Your task to perform on an android device: turn on the 24-hour format for clock Image 0: 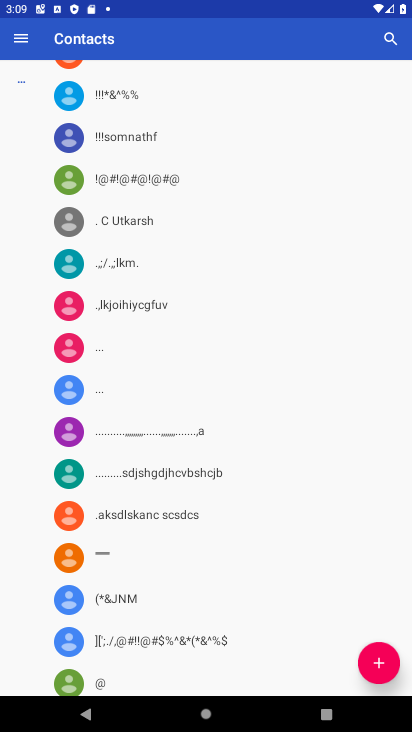
Step 0: press home button
Your task to perform on an android device: turn on the 24-hour format for clock Image 1: 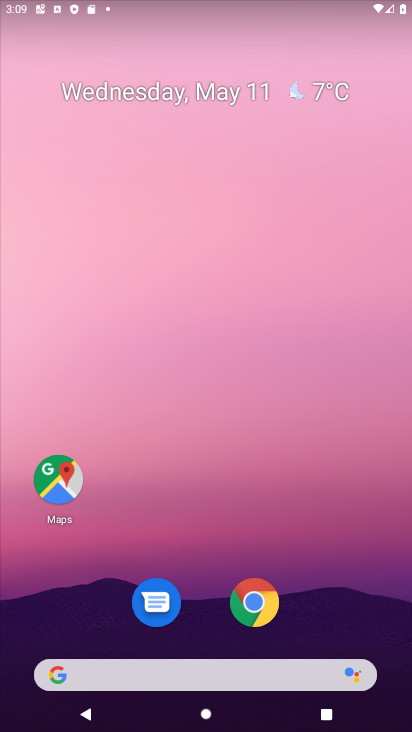
Step 1: drag from (219, 621) to (321, 54)
Your task to perform on an android device: turn on the 24-hour format for clock Image 2: 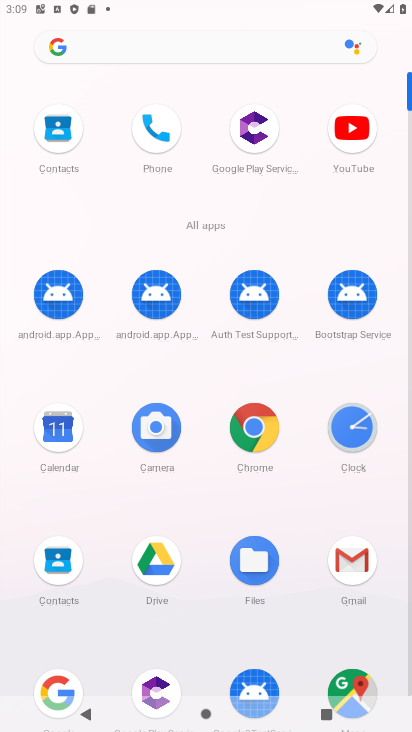
Step 2: click (354, 440)
Your task to perform on an android device: turn on the 24-hour format for clock Image 3: 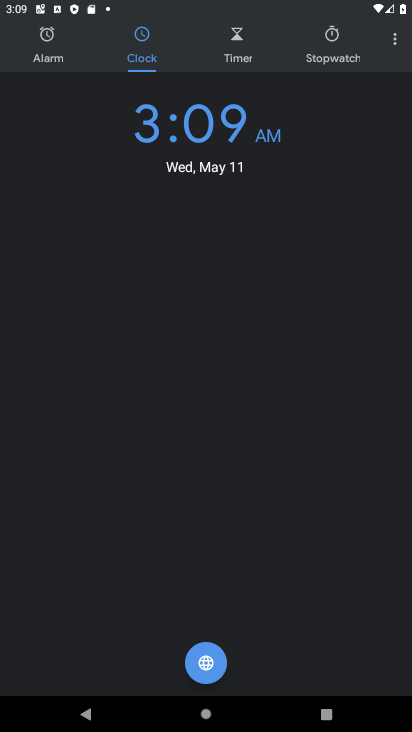
Step 3: click (384, 43)
Your task to perform on an android device: turn on the 24-hour format for clock Image 4: 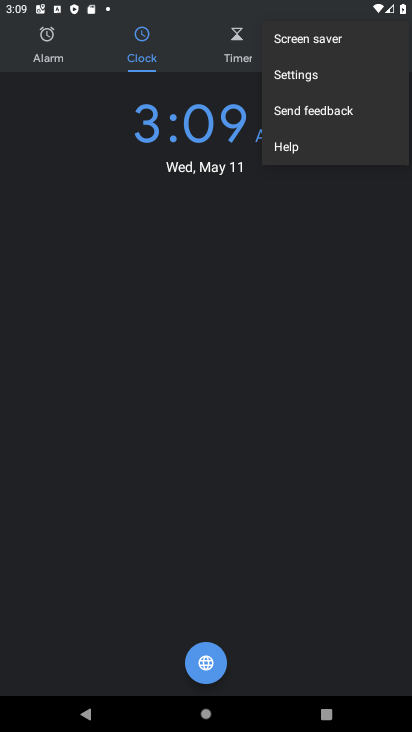
Step 4: click (362, 77)
Your task to perform on an android device: turn on the 24-hour format for clock Image 5: 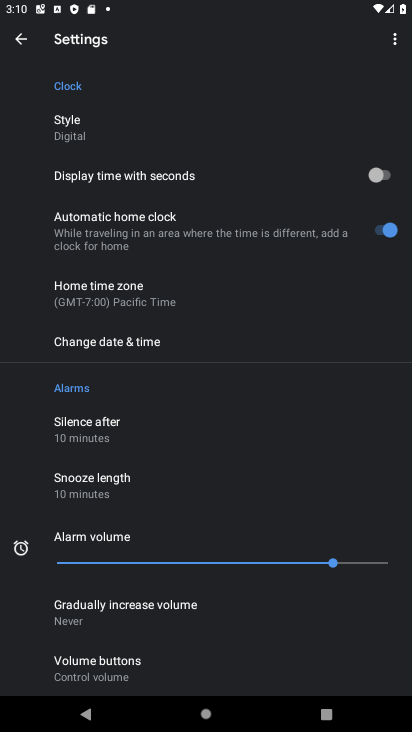
Step 5: drag from (97, 617) to (124, 392)
Your task to perform on an android device: turn on the 24-hour format for clock Image 6: 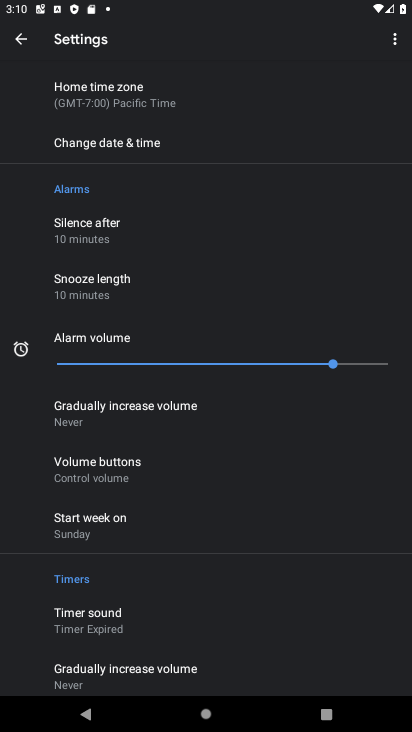
Step 6: drag from (192, 631) to (243, 378)
Your task to perform on an android device: turn on the 24-hour format for clock Image 7: 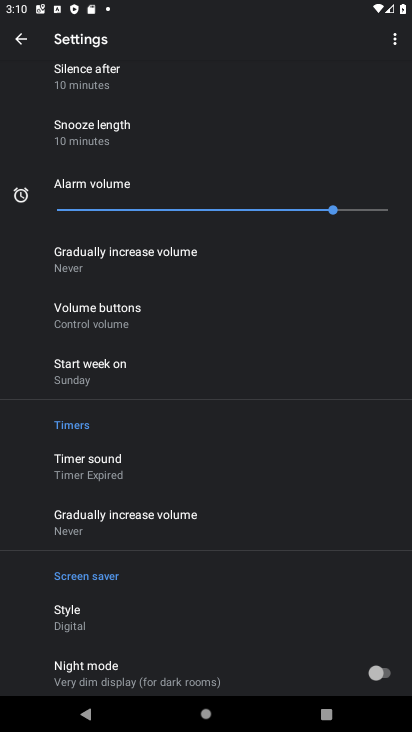
Step 7: drag from (227, 619) to (275, 349)
Your task to perform on an android device: turn on the 24-hour format for clock Image 8: 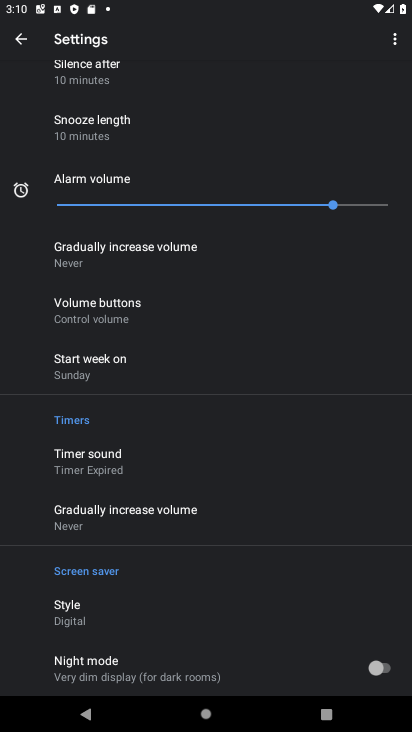
Step 8: drag from (302, 314) to (246, 665)
Your task to perform on an android device: turn on the 24-hour format for clock Image 9: 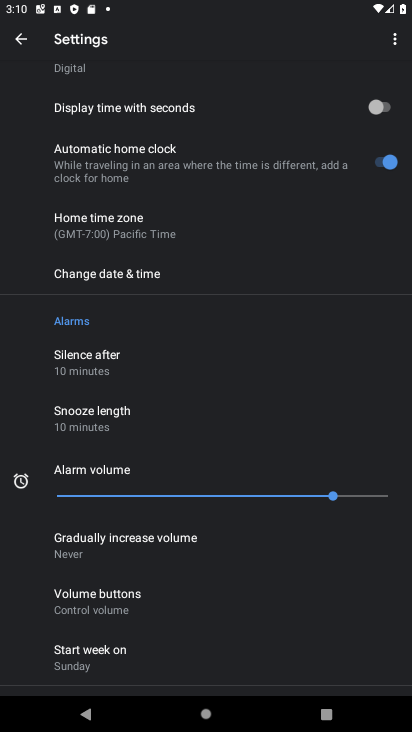
Step 9: drag from (279, 204) to (187, 601)
Your task to perform on an android device: turn on the 24-hour format for clock Image 10: 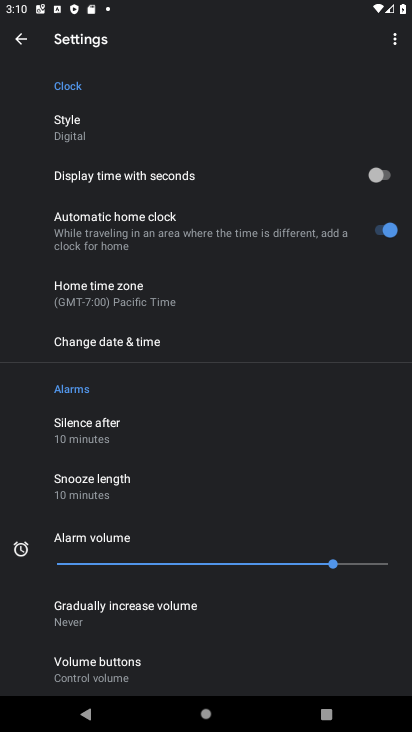
Step 10: click (151, 339)
Your task to perform on an android device: turn on the 24-hour format for clock Image 11: 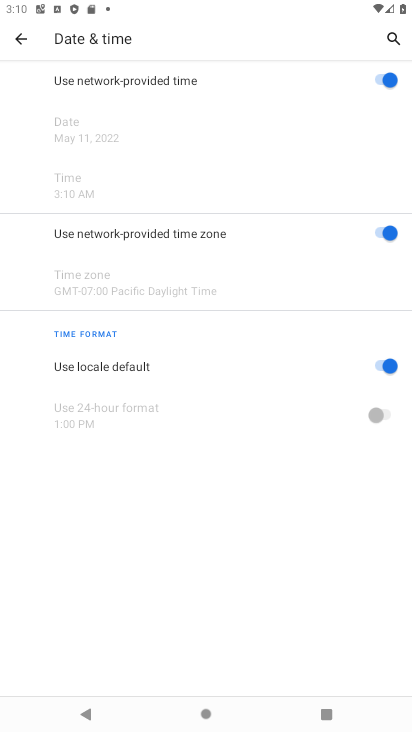
Step 11: drag from (197, 559) to (179, 131)
Your task to perform on an android device: turn on the 24-hour format for clock Image 12: 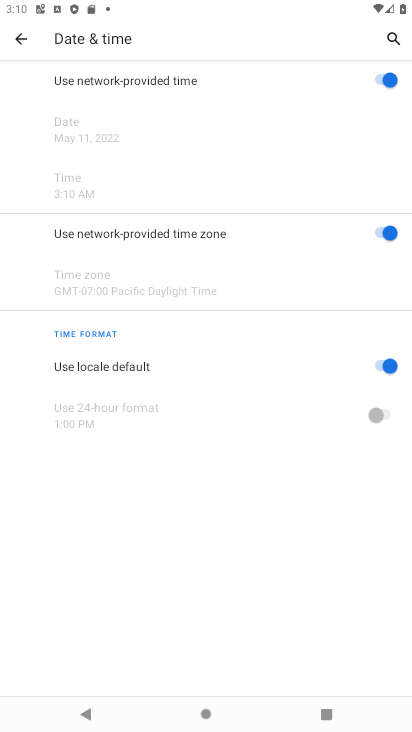
Step 12: click (394, 356)
Your task to perform on an android device: turn on the 24-hour format for clock Image 13: 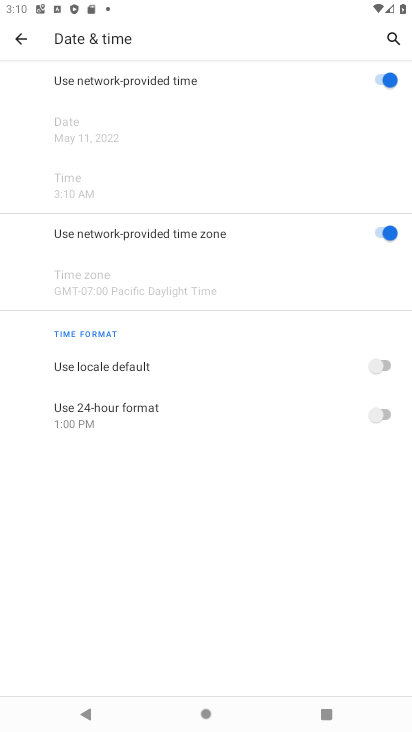
Step 13: click (372, 418)
Your task to perform on an android device: turn on the 24-hour format for clock Image 14: 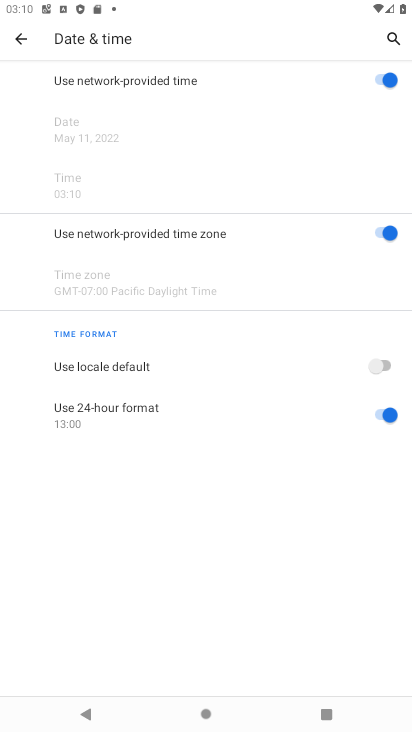
Step 14: task complete